Your task to perform on an android device: open the mobile data screen to see how much data has been used Image 0: 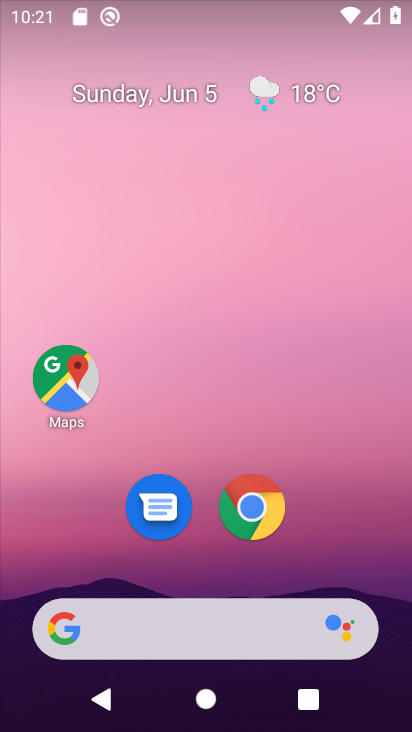
Step 0: drag from (206, 575) to (299, 6)
Your task to perform on an android device: open the mobile data screen to see how much data has been used Image 1: 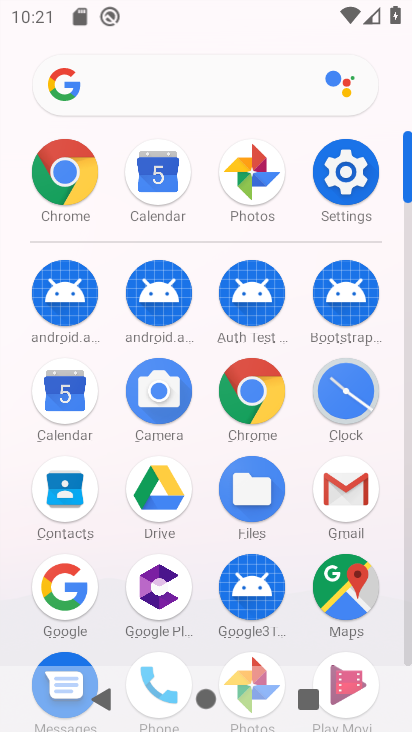
Step 1: click (338, 179)
Your task to perform on an android device: open the mobile data screen to see how much data has been used Image 2: 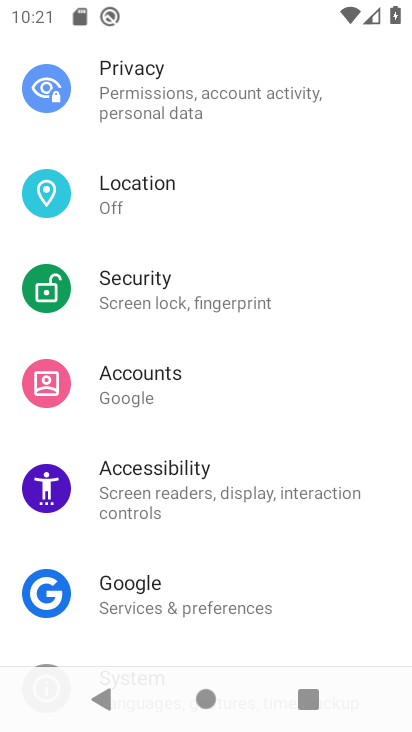
Step 2: drag from (214, 339) to (176, 731)
Your task to perform on an android device: open the mobile data screen to see how much data has been used Image 3: 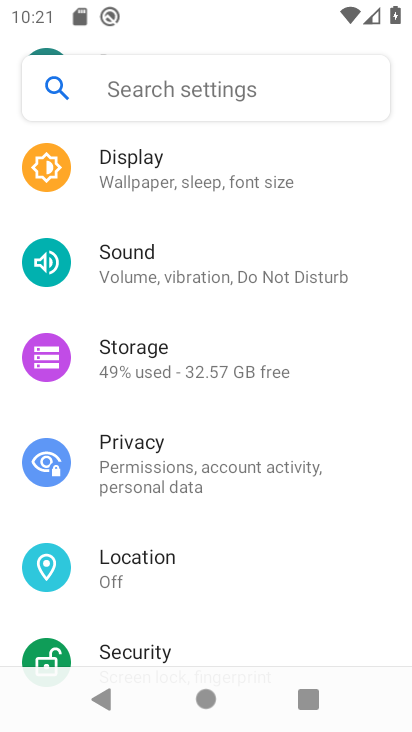
Step 3: drag from (195, 234) to (160, 524)
Your task to perform on an android device: open the mobile data screen to see how much data has been used Image 4: 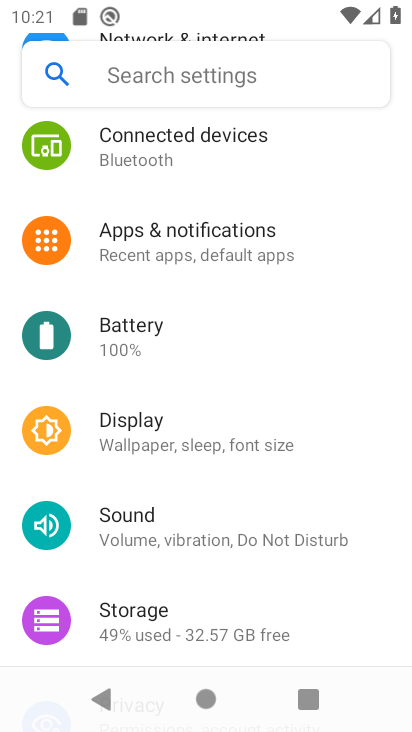
Step 4: drag from (184, 180) to (171, 536)
Your task to perform on an android device: open the mobile data screen to see how much data has been used Image 5: 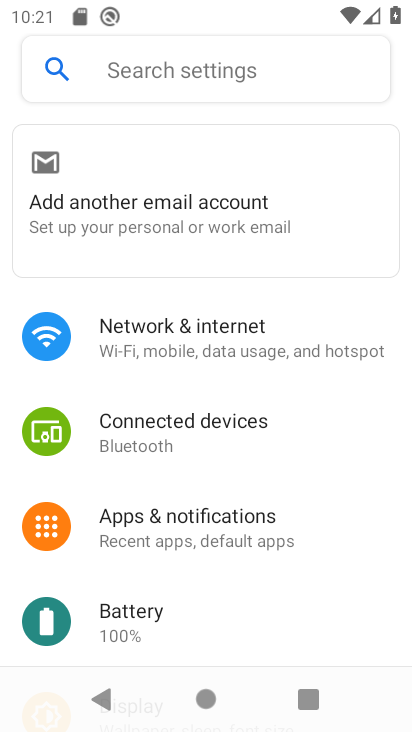
Step 5: drag from (229, 265) to (196, 594)
Your task to perform on an android device: open the mobile data screen to see how much data has been used Image 6: 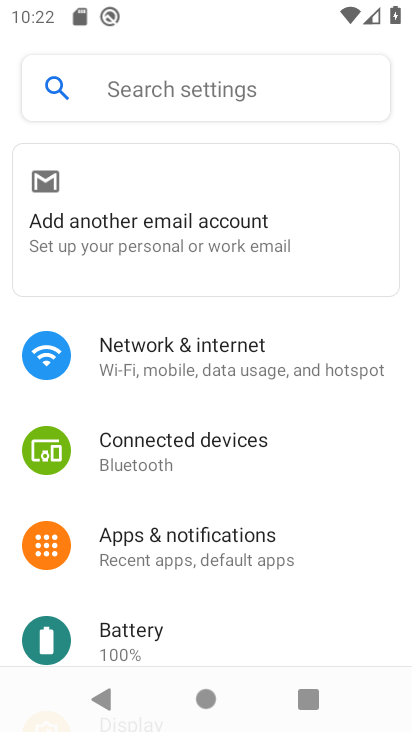
Step 6: click (209, 367)
Your task to perform on an android device: open the mobile data screen to see how much data has been used Image 7: 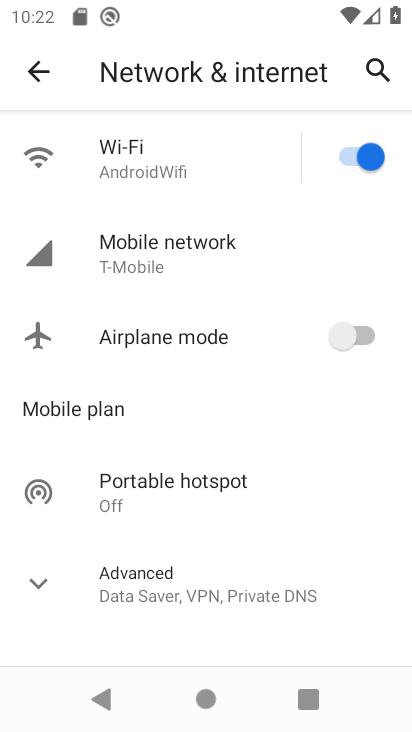
Step 7: click (182, 263)
Your task to perform on an android device: open the mobile data screen to see how much data has been used Image 8: 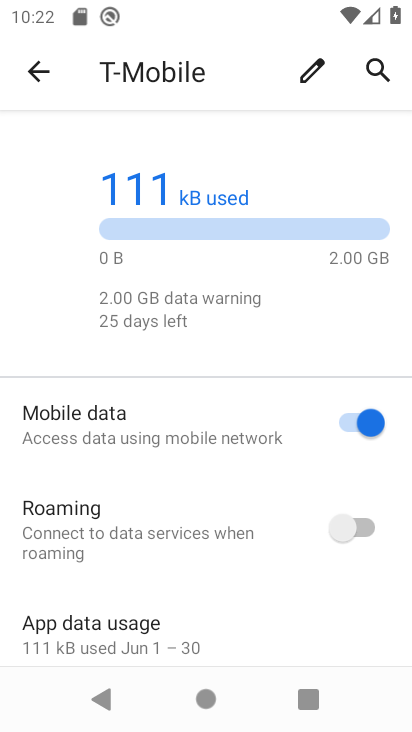
Step 8: drag from (131, 623) to (188, 231)
Your task to perform on an android device: open the mobile data screen to see how much data has been used Image 9: 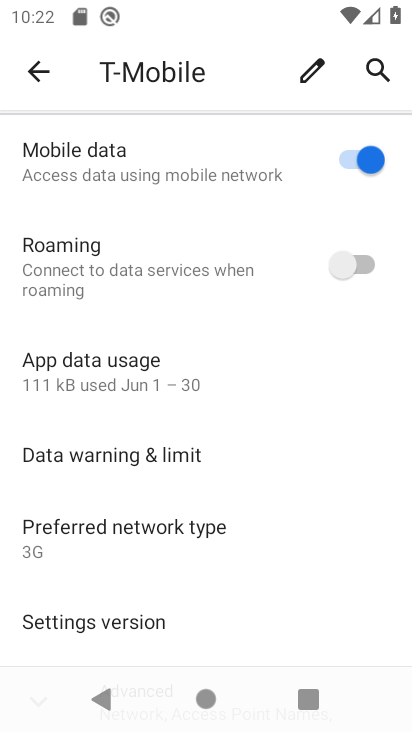
Step 9: click (147, 384)
Your task to perform on an android device: open the mobile data screen to see how much data has been used Image 10: 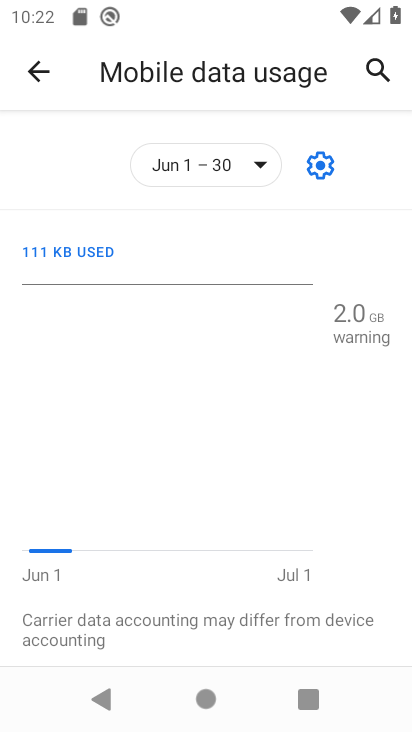
Step 10: task complete